Your task to perform on an android device: turn on translation in the chrome app Image 0: 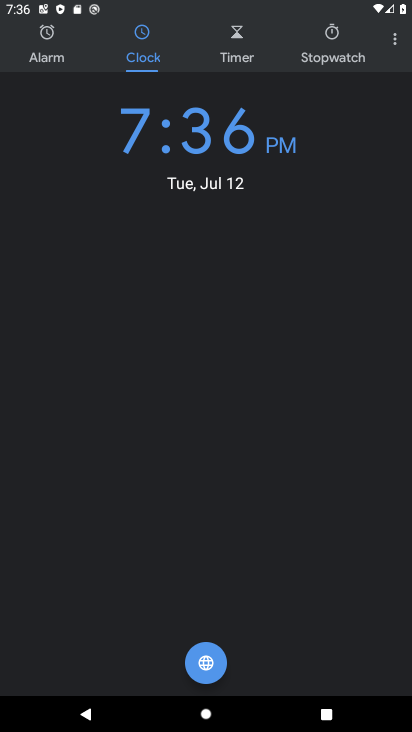
Step 0: press home button
Your task to perform on an android device: turn on translation in the chrome app Image 1: 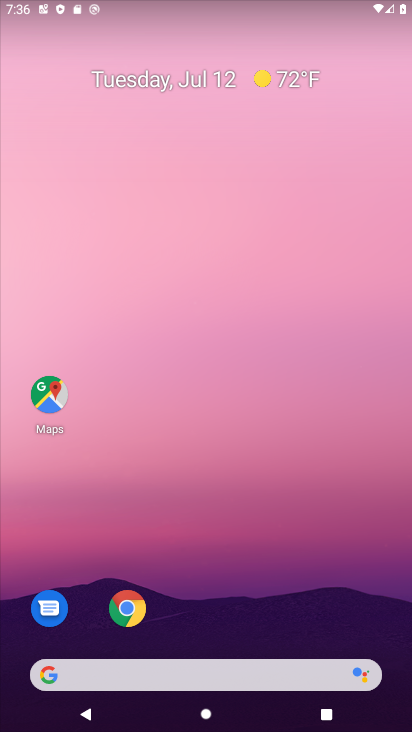
Step 1: drag from (382, 630) to (366, 155)
Your task to perform on an android device: turn on translation in the chrome app Image 2: 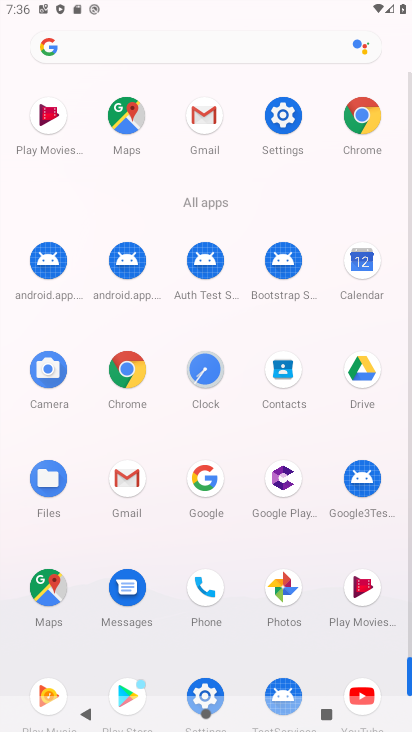
Step 2: click (130, 371)
Your task to perform on an android device: turn on translation in the chrome app Image 3: 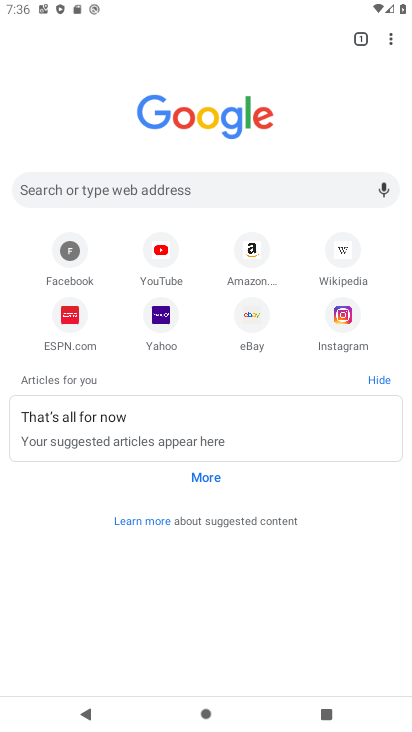
Step 3: click (394, 39)
Your task to perform on an android device: turn on translation in the chrome app Image 4: 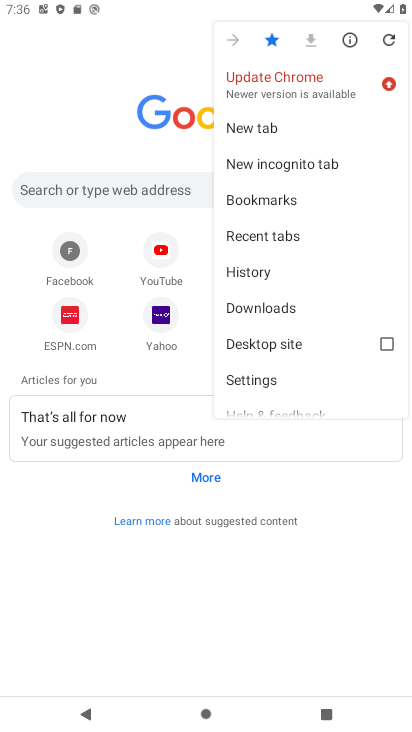
Step 4: click (284, 381)
Your task to perform on an android device: turn on translation in the chrome app Image 5: 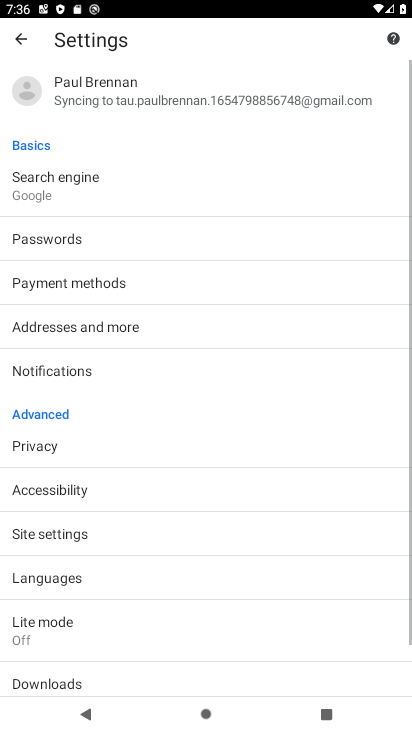
Step 5: drag from (295, 470) to (313, 347)
Your task to perform on an android device: turn on translation in the chrome app Image 6: 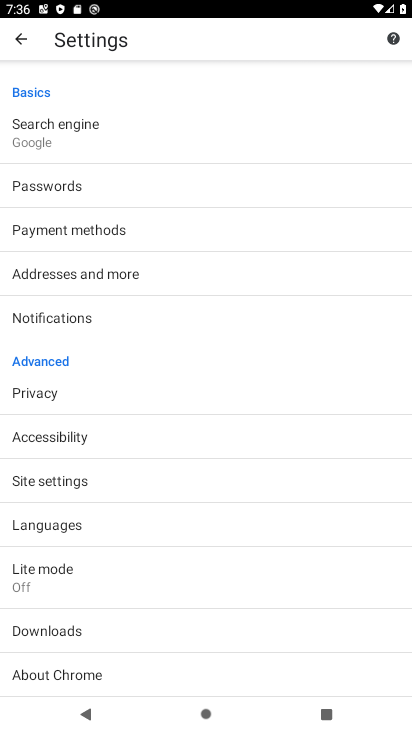
Step 6: drag from (320, 454) to (332, 304)
Your task to perform on an android device: turn on translation in the chrome app Image 7: 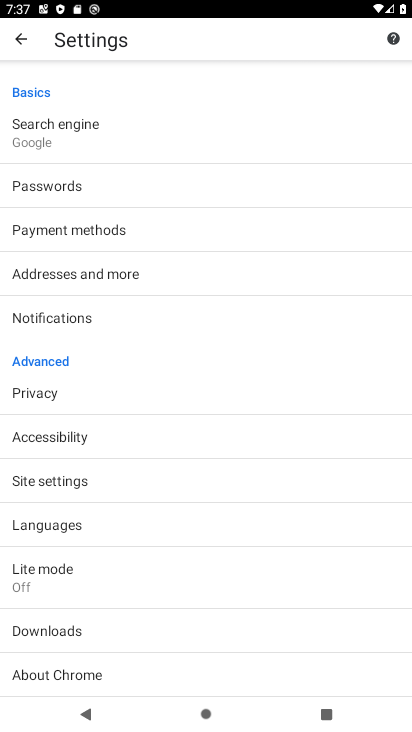
Step 7: click (234, 516)
Your task to perform on an android device: turn on translation in the chrome app Image 8: 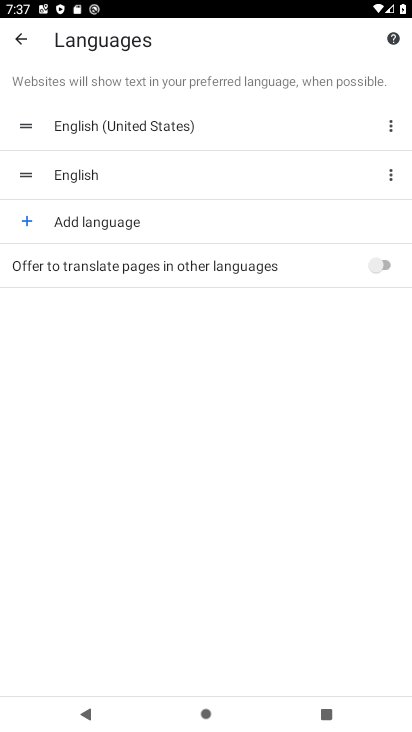
Step 8: click (389, 258)
Your task to perform on an android device: turn on translation in the chrome app Image 9: 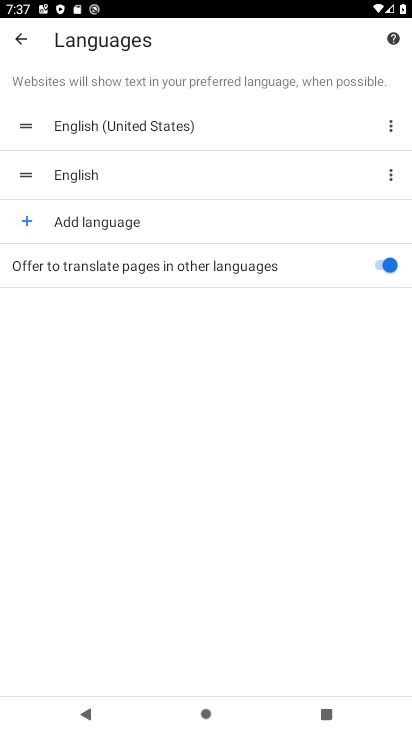
Step 9: task complete